Your task to perform on an android device: Search for bose soundsport free on ebay, select the first entry, and add it to the cart. Image 0: 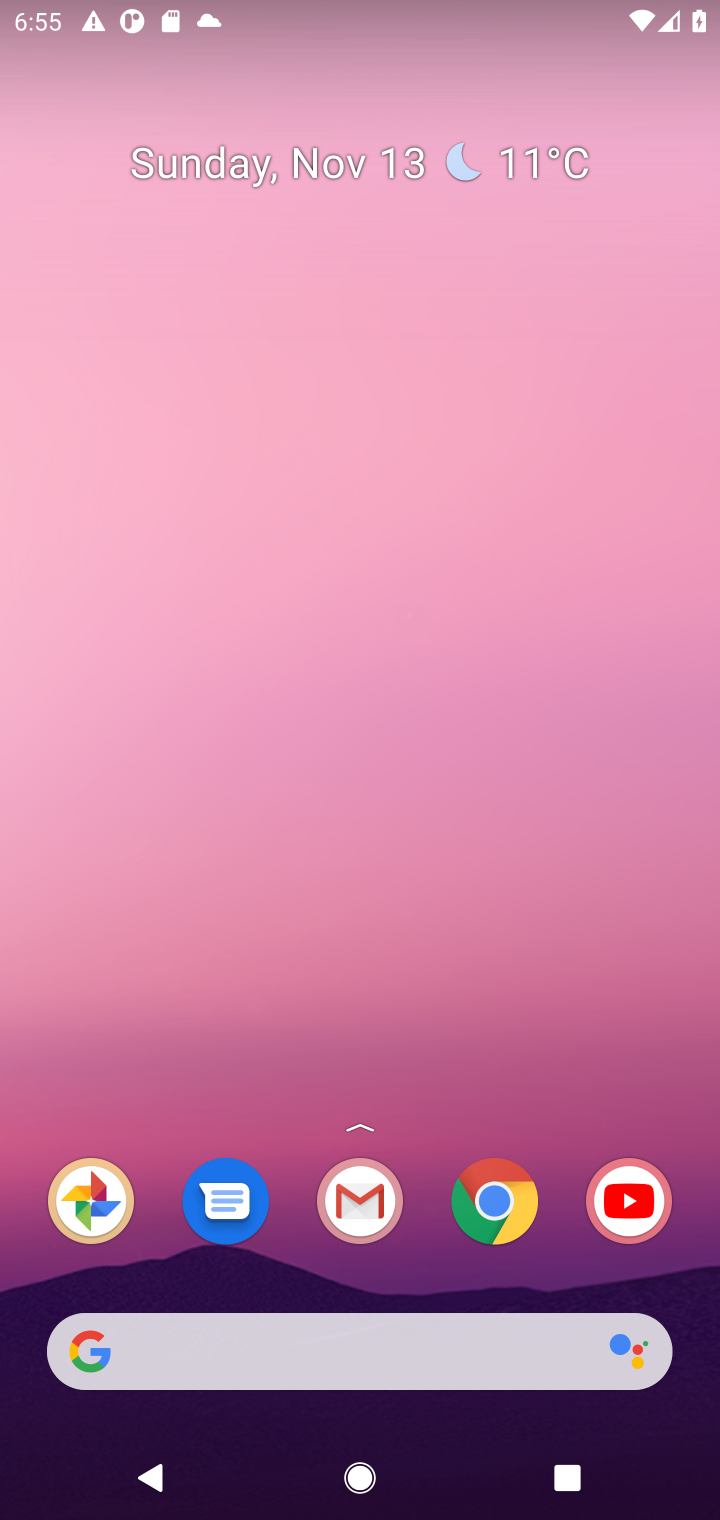
Step 0: drag from (451, 1174) to (550, 313)
Your task to perform on an android device: Search for bose soundsport free on ebay, select the first entry, and add it to the cart. Image 1: 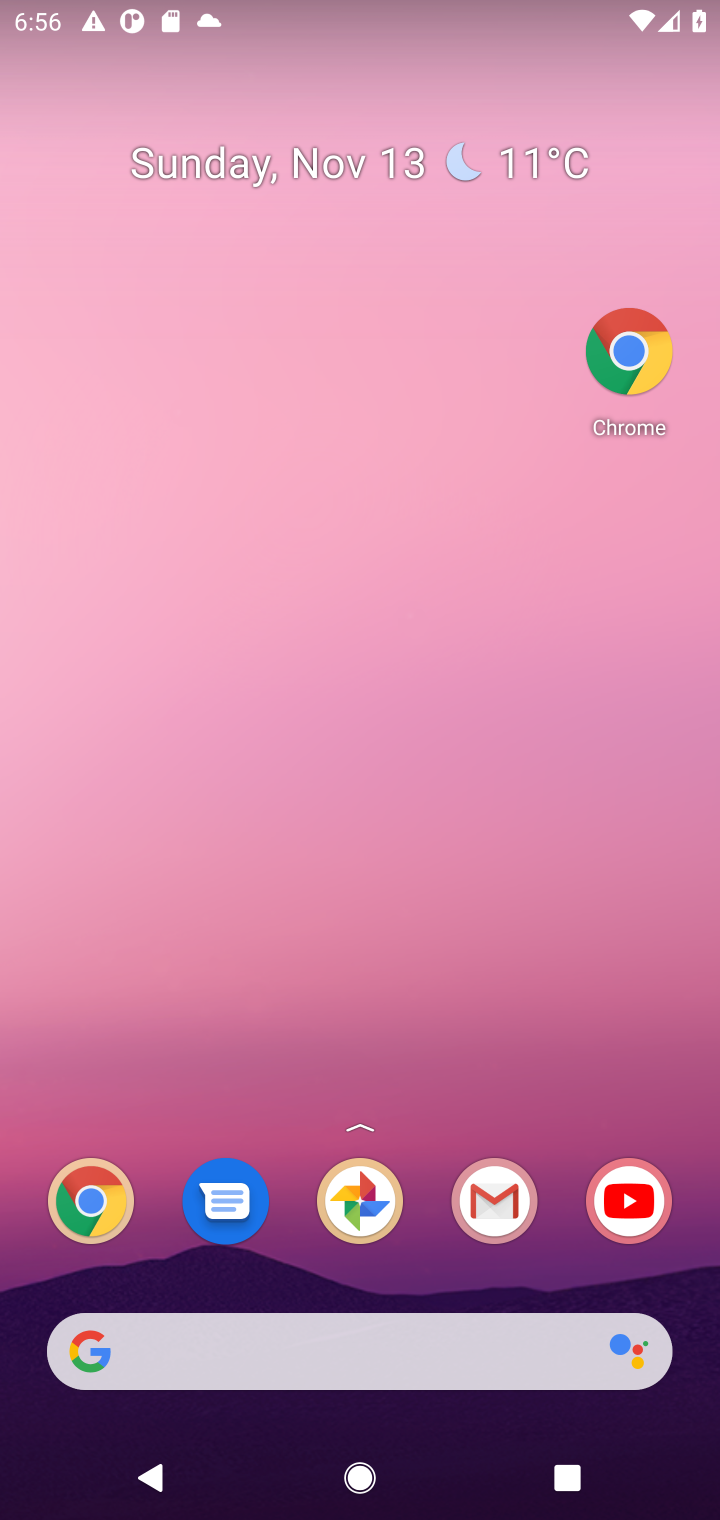
Step 1: drag from (432, 1307) to (314, 226)
Your task to perform on an android device: Search for bose soundsport free on ebay, select the first entry, and add it to the cart. Image 2: 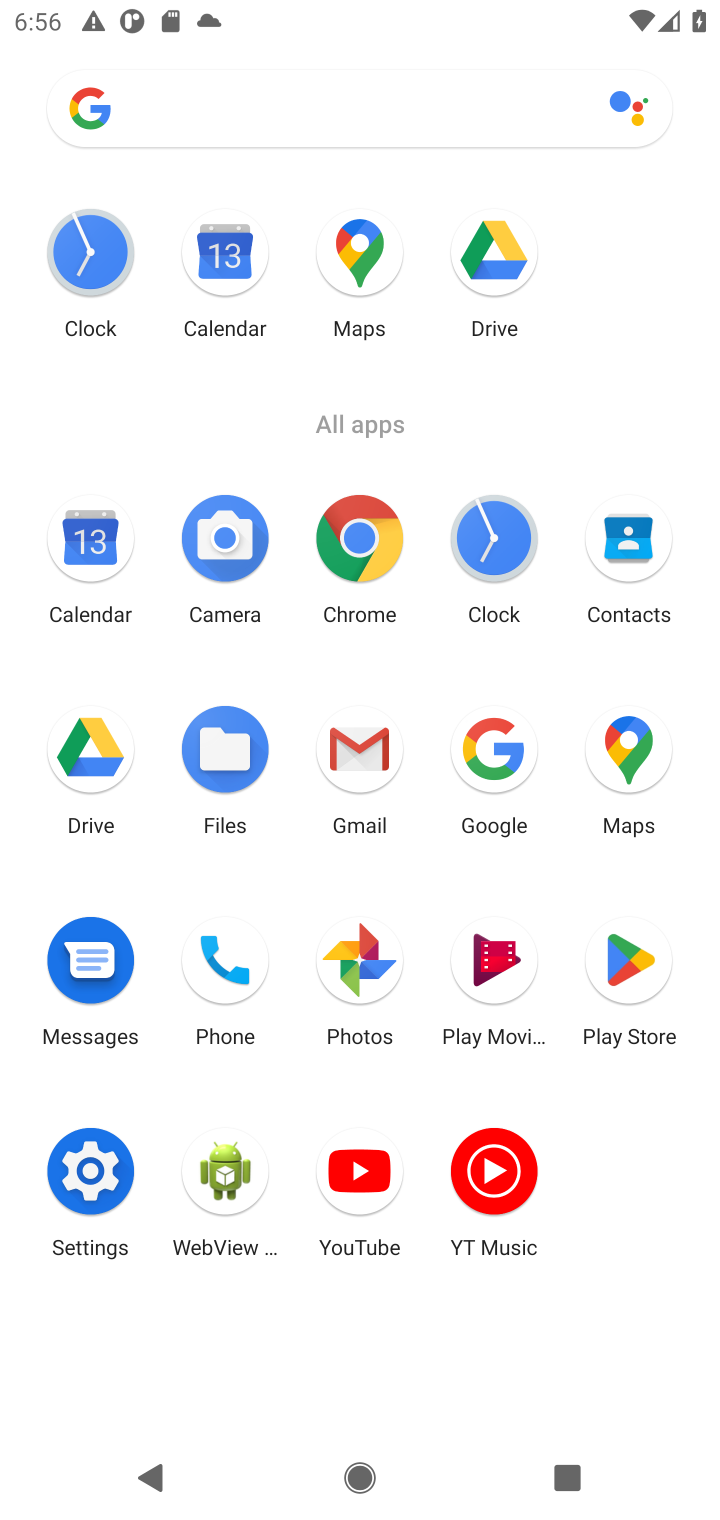
Step 2: click (361, 531)
Your task to perform on an android device: Search for bose soundsport free on ebay, select the first entry, and add it to the cart. Image 3: 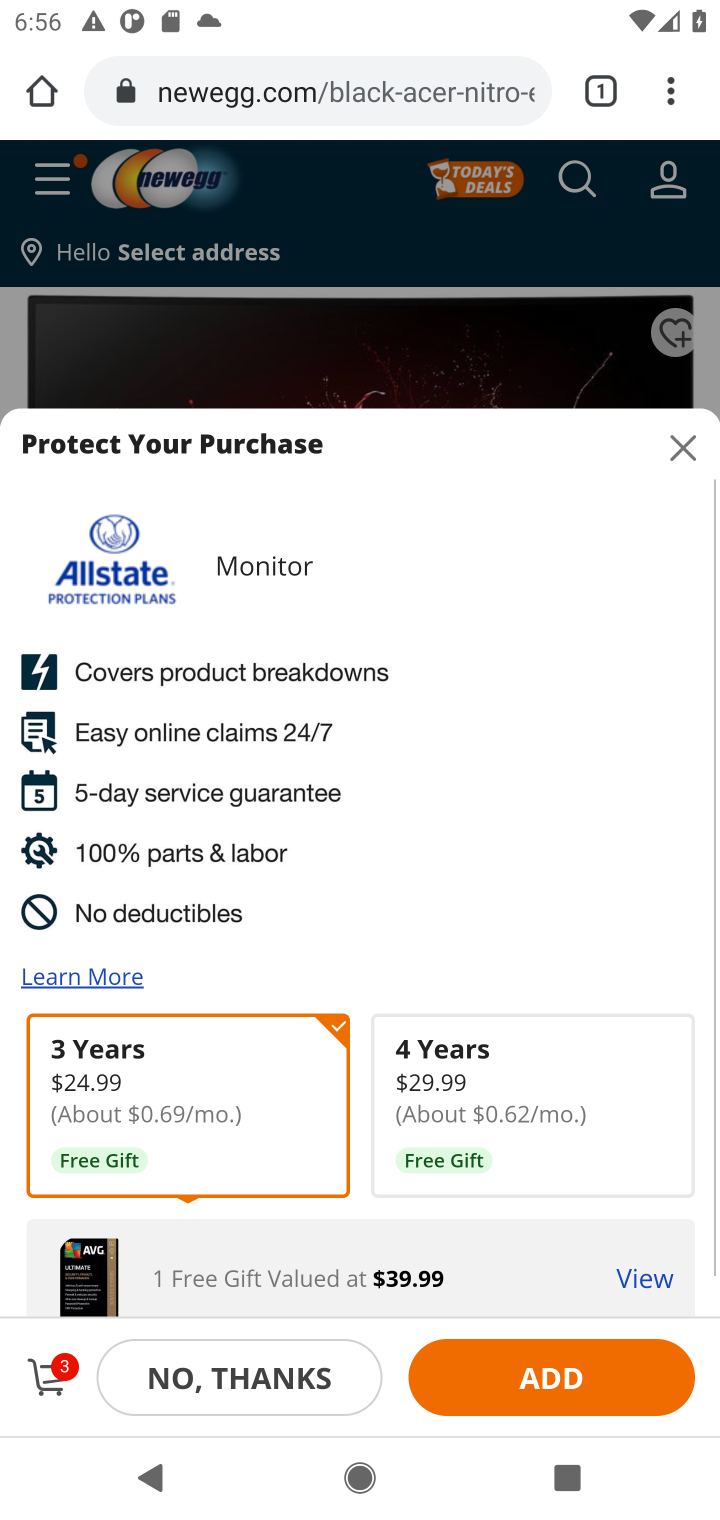
Step 3: click (413, 71)
Your task to perform on an android device: Search for bose soundsport free on ebay, select the first entry, and add it to the cart. Image 4: 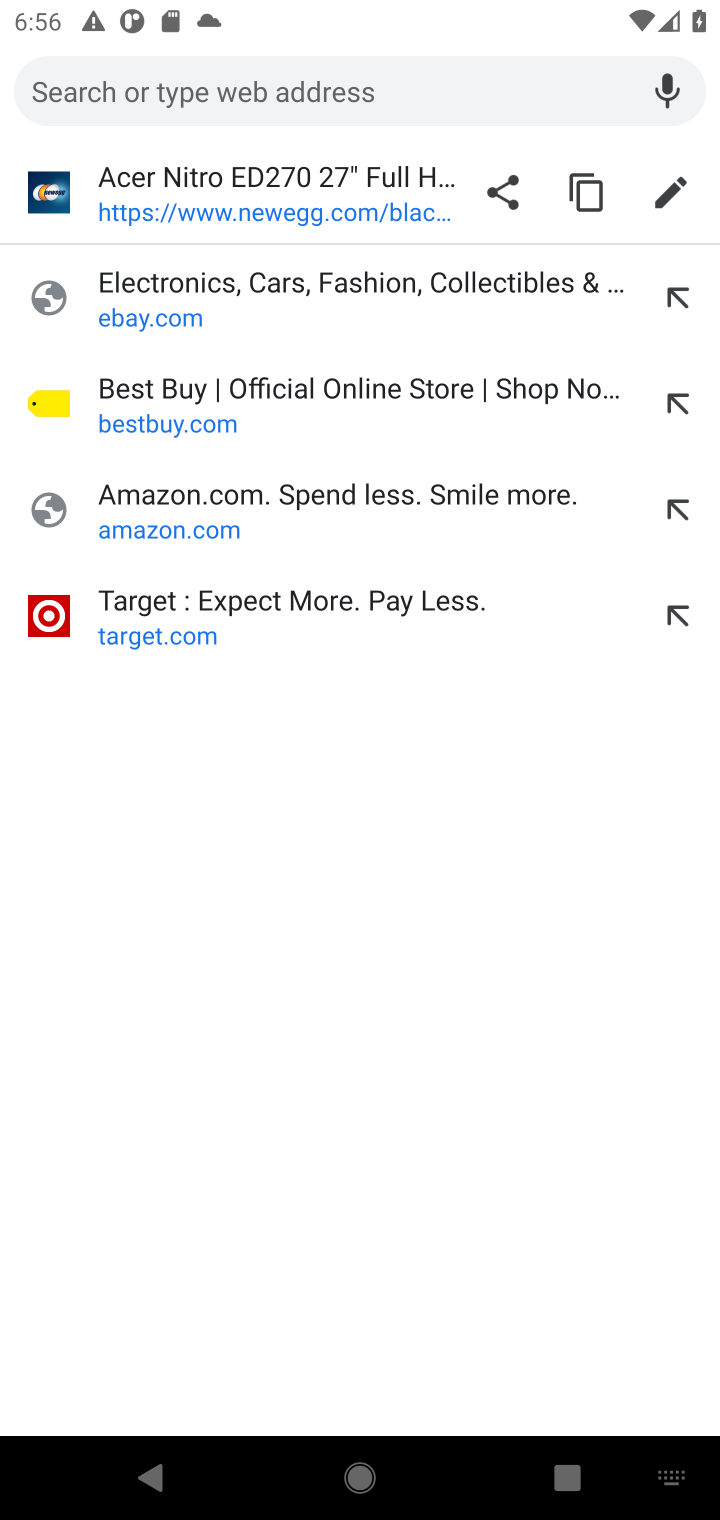
Step 4: type "ebay.com"
Your task to perform on an android device: Search for bose soundsport free on ebay, select the first entry, and add it to the cart. Image 5: 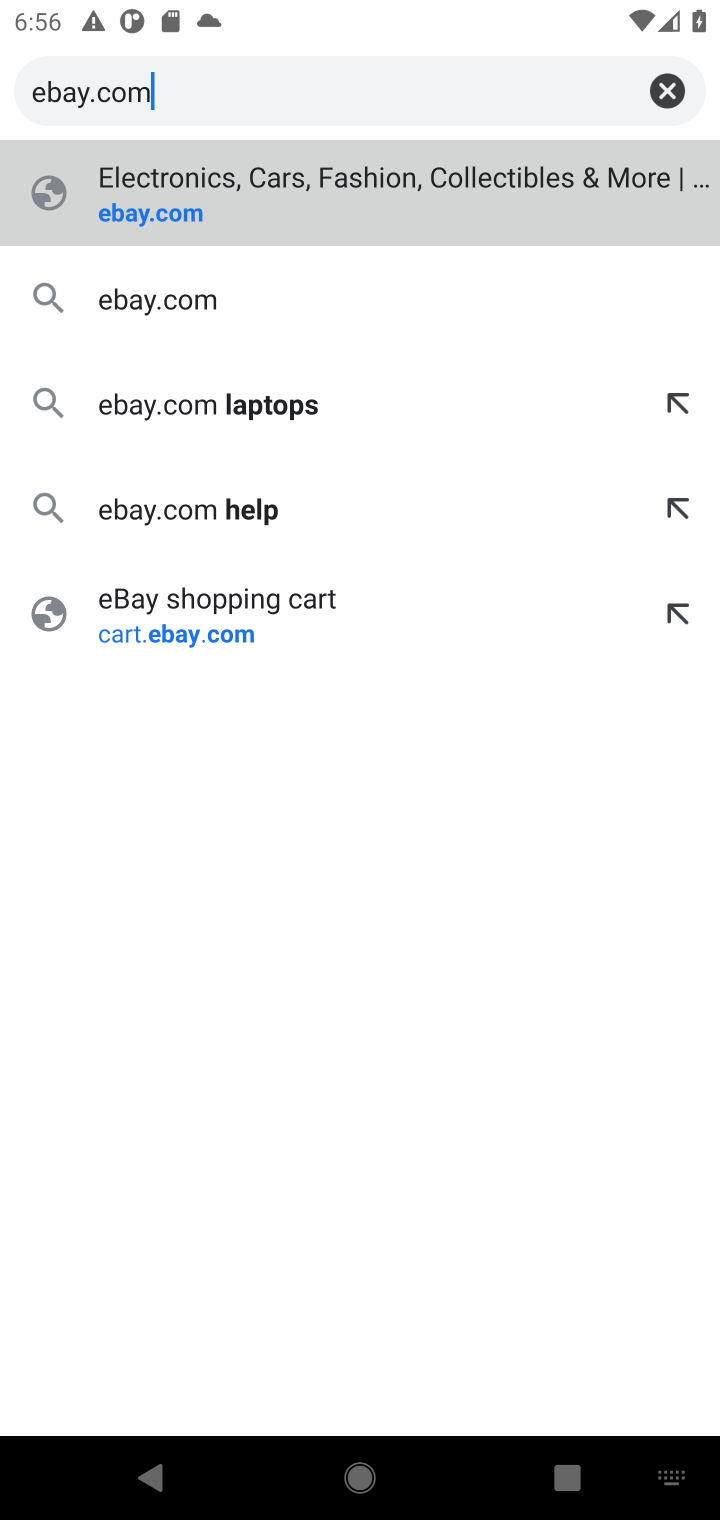
Step 5: press enter
Your task to perform on an android device: Search for bose soundsport free on ebay, select the first entry, and add it to the cart. Image 6: 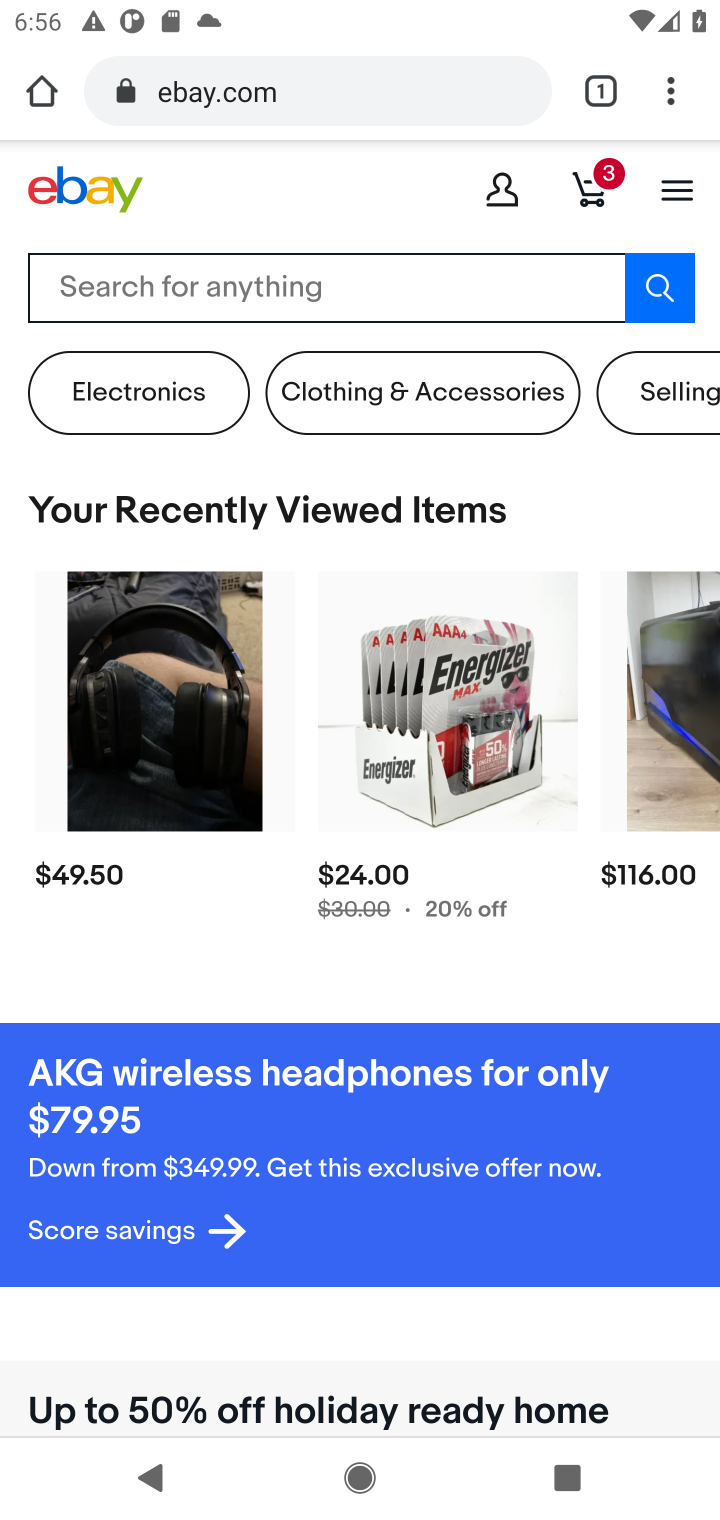
Step 6: click (411, 295)
Your task to perform on an android device: Search for bose soundsport free on ebay, select the first entry, and add it to the cart. Image 7: 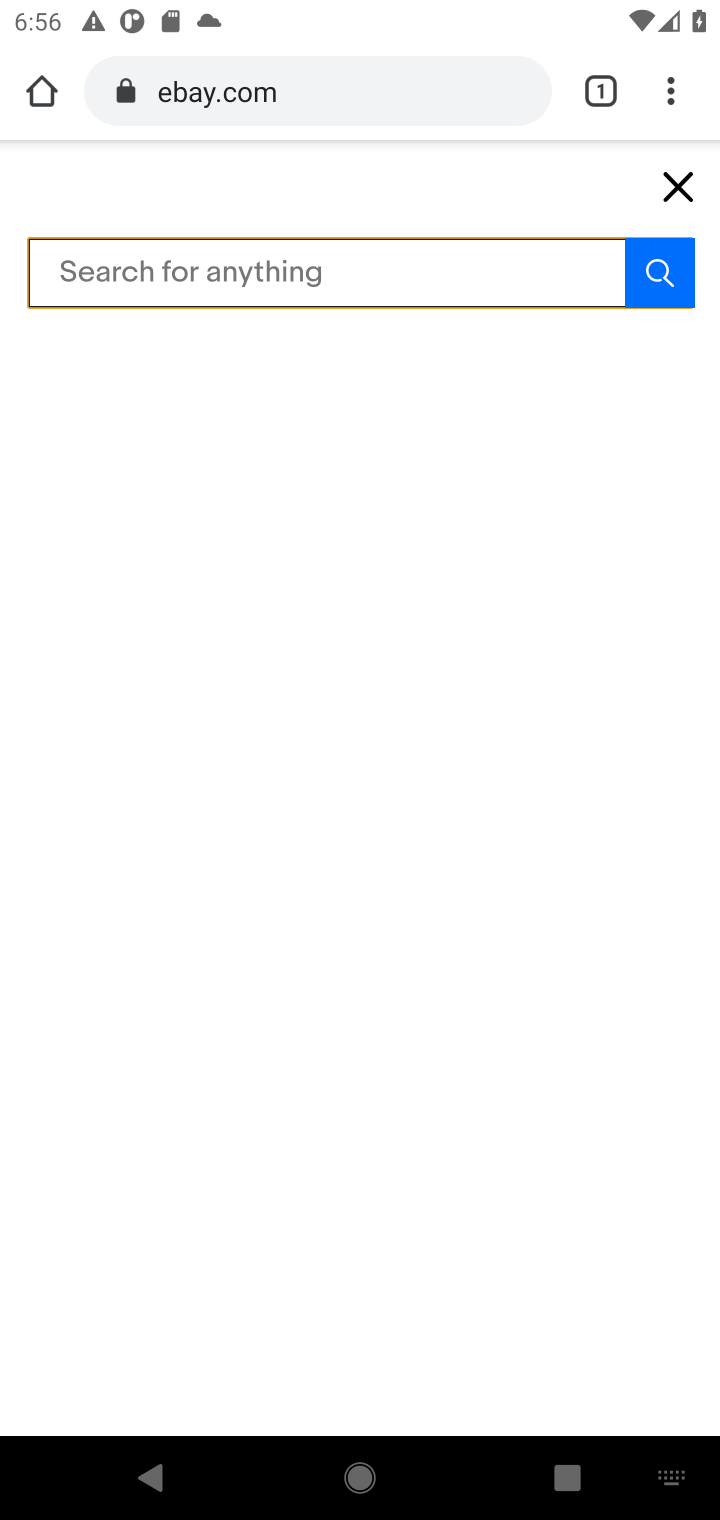
Step 7: type "bose soundsport free"
Your task to perform on an android device: Search for bose soundsport free on ebay, select the first entry, and add it to the cart. Image 8: 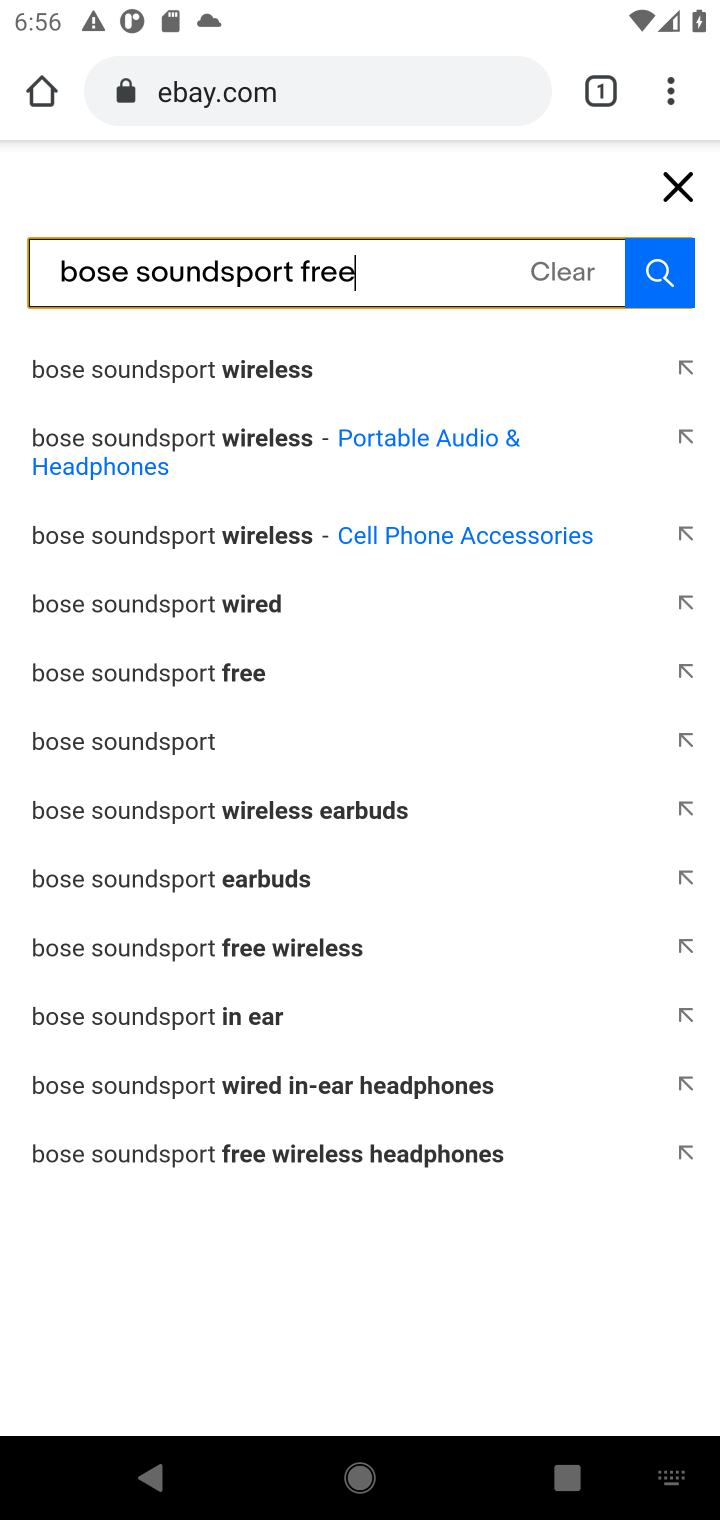
Step 8: press enter
Your task to perform on an android device: Search for bose soundsport free on ebay, select the first entry, and add it to the cart. Image 9: 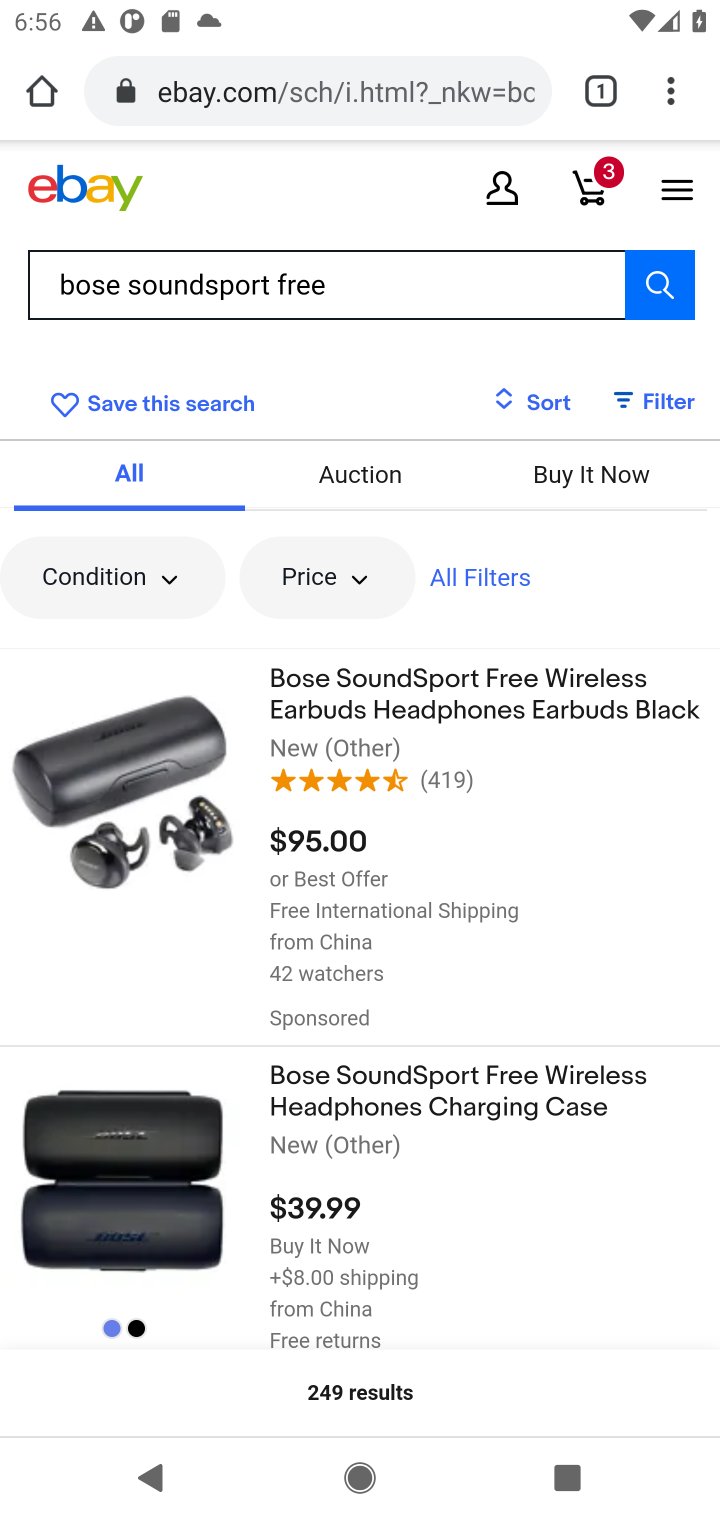
Step 9: click (480, 707)
Your task to perform on an android device: Search for bose soundsport free on ebay, select the first entry, and add it to the cart. Image 10: 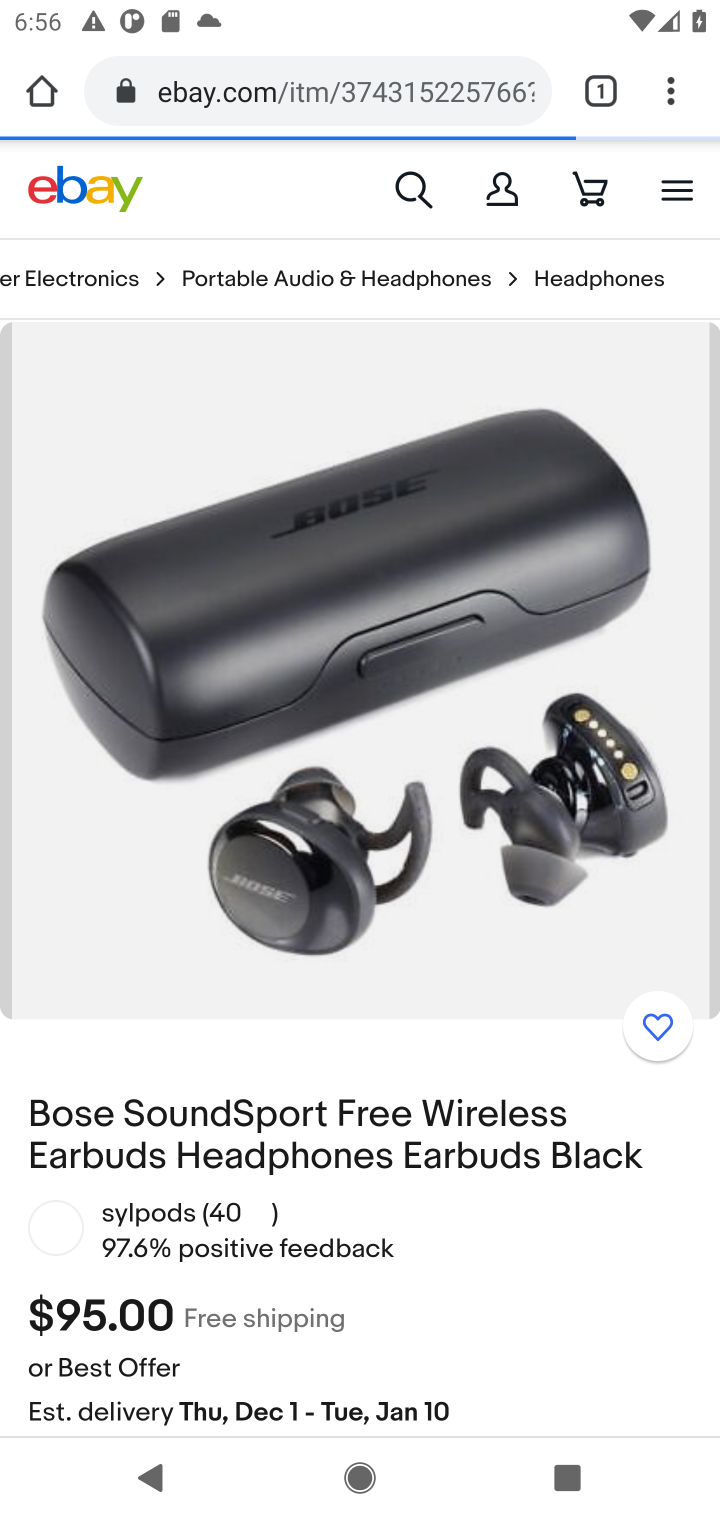
Step 10: press back button
Your task to perform on an android device: Search for bose soundsport free on ebay, select the first entry, and add it to the cart. Image 11: 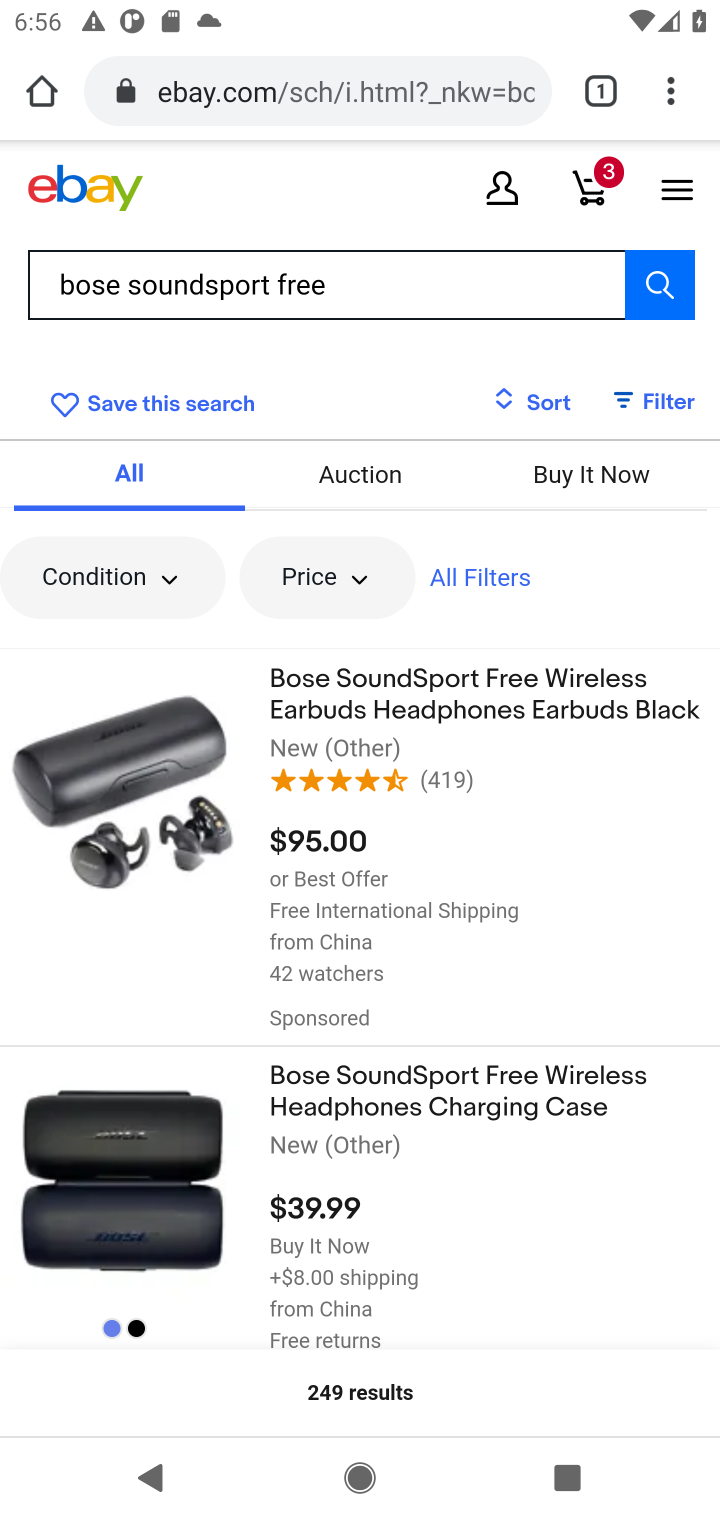
Step 11: drag from (421, 1293) to (420, 804)
Your task to perform on an android device: Search for bose soundsport free on ebay, select the first entry, and add it to the cart. Image 12: 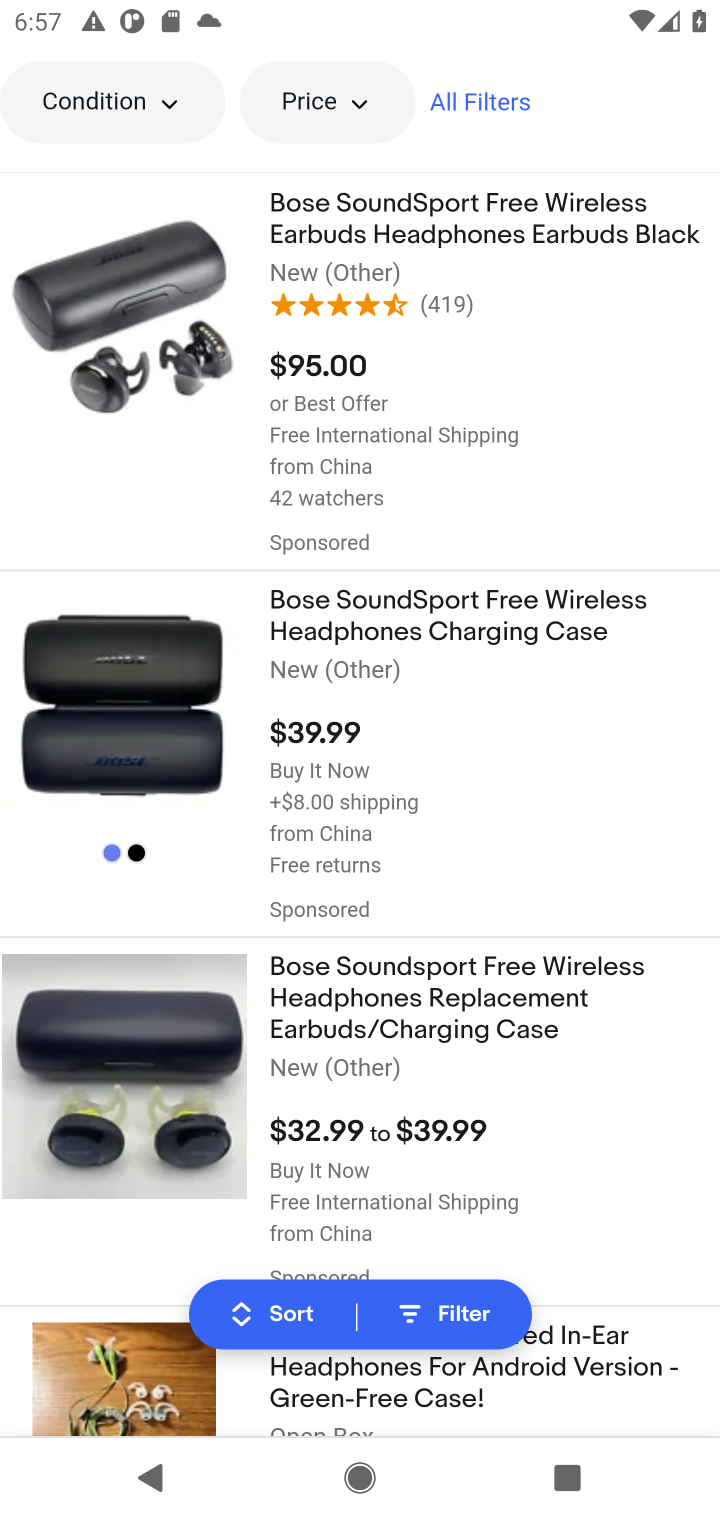
Step 12: drag from (554, 1169) to (580, 553)
Your task to perform on an android device: Search for bose soundsport free on ebay, select the first entry, and add it to the cart. Image 13: 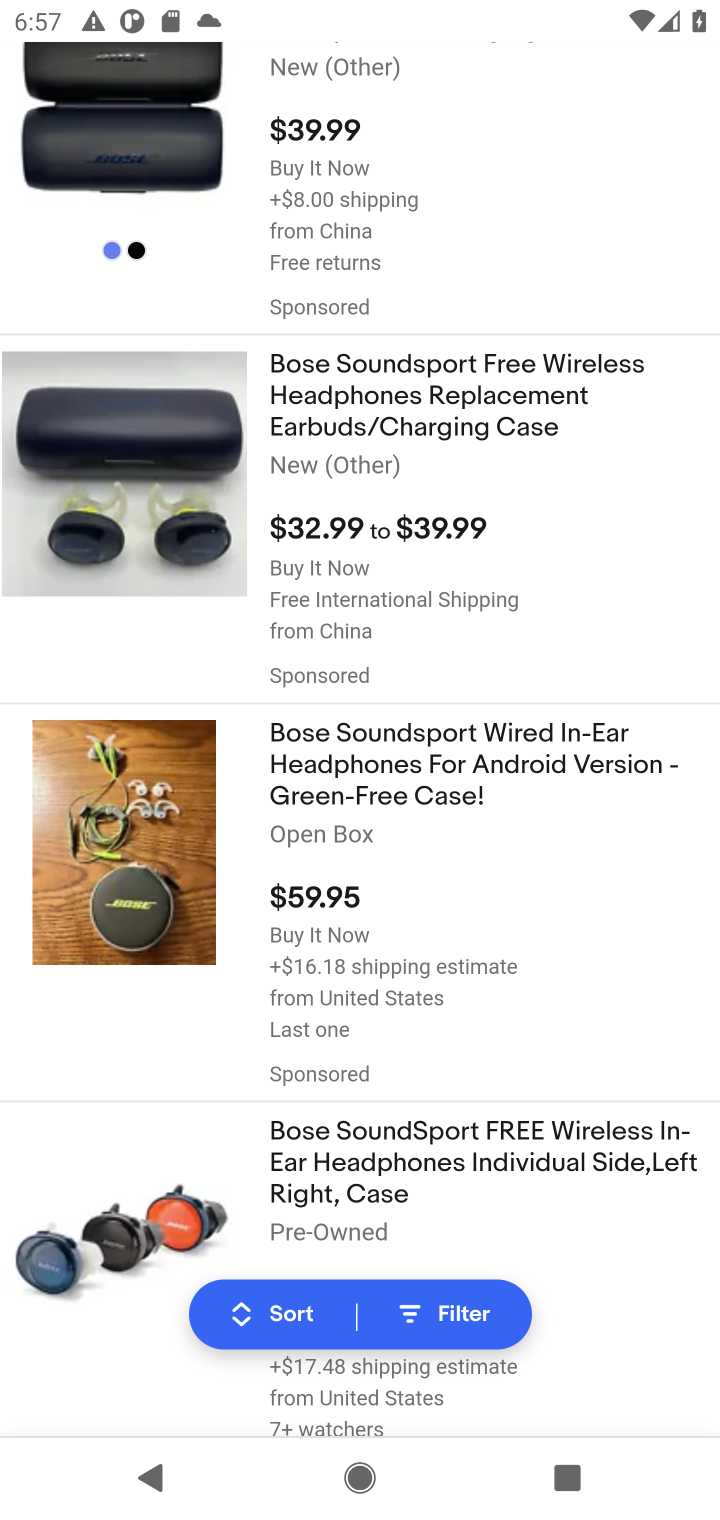
Step 13: drag from (554, 1185) to (489, 776)
Your task to perform on an android device: Search for bose soundsport free on ebay, select the first entry, and add it to the cart. Image 14: 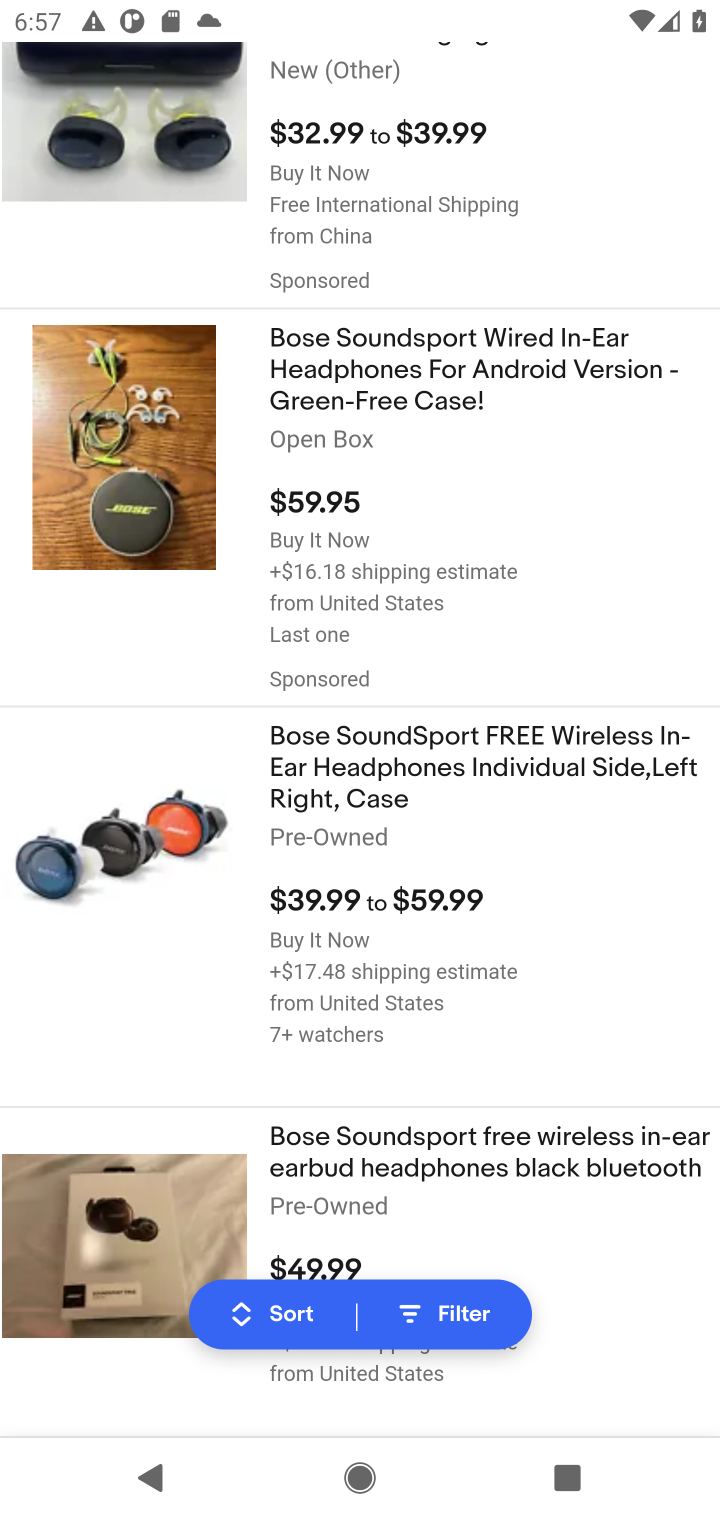
Step 14: drag from (441, 1045) to (542, 457)
Your task to perform on an android device: Search for bose soundsport free on ebay, select the first entry, and add it to the cart. Image 15: 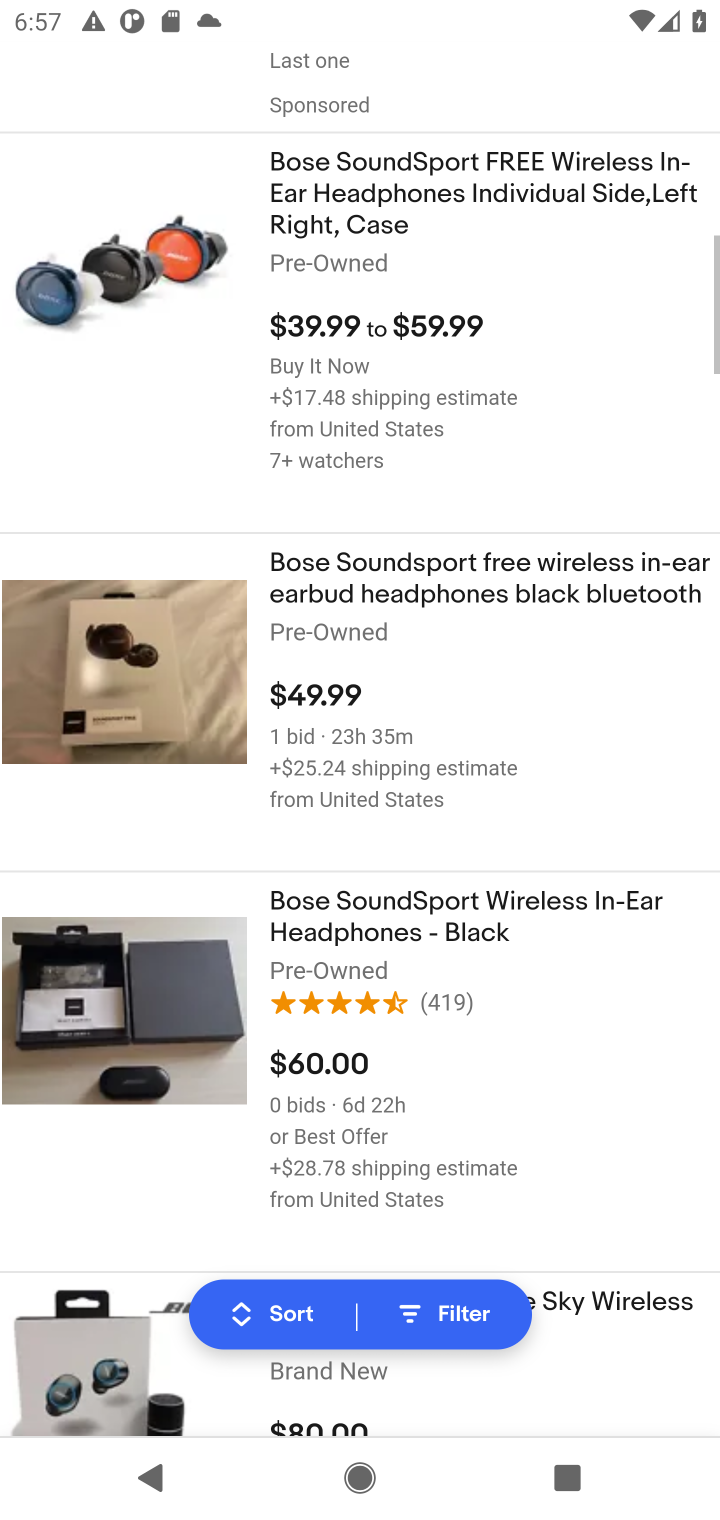
Step 15: drag from (595, 981) to (560, 322)
Your task to perform on an android device: Search for bose soundsport free on ebay, select the first entry, and add it to the cart. Image 16: 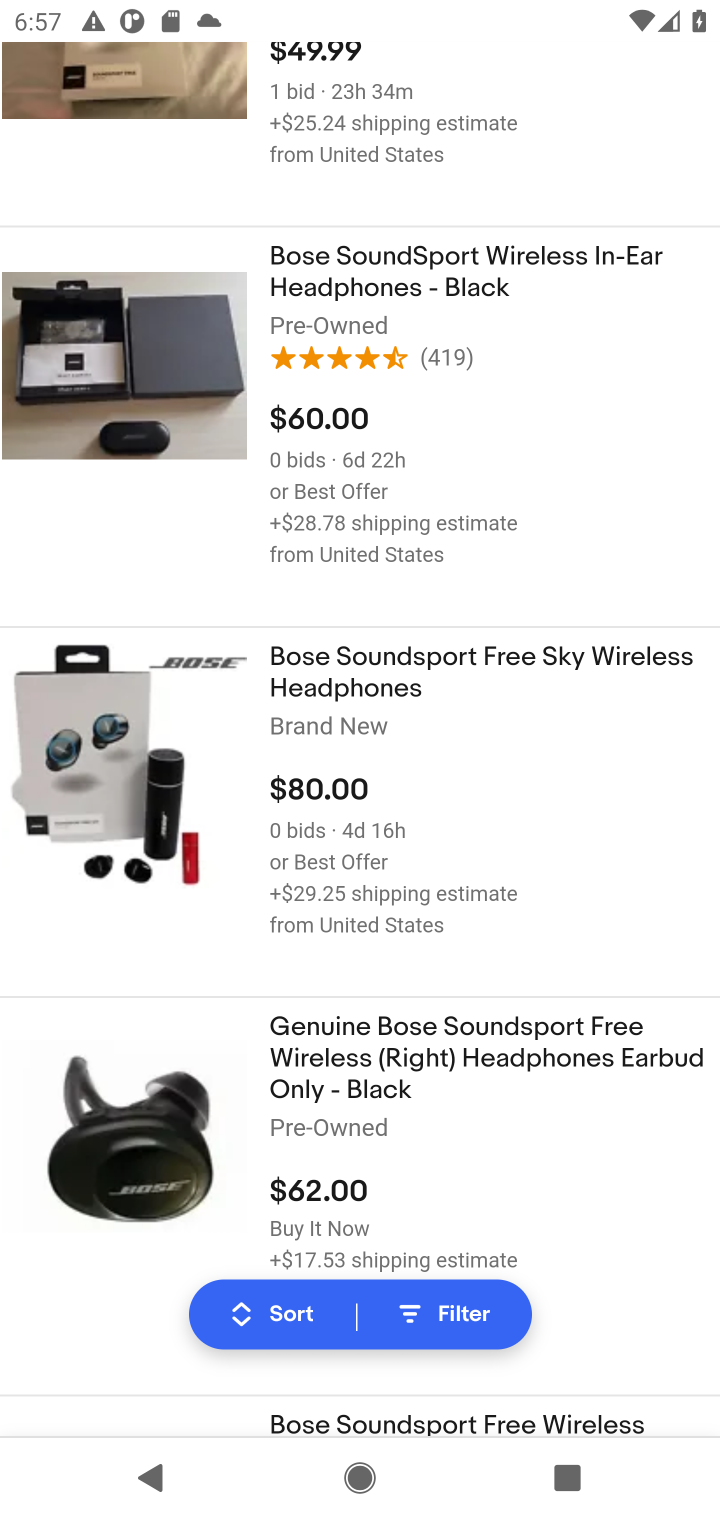
Step 16: drag from (432, 398) to (501, 1326)
Your task to perform on an android device: Search for bose soundsport free on ebay, select the first entry, and add it to the cart. Image 17: 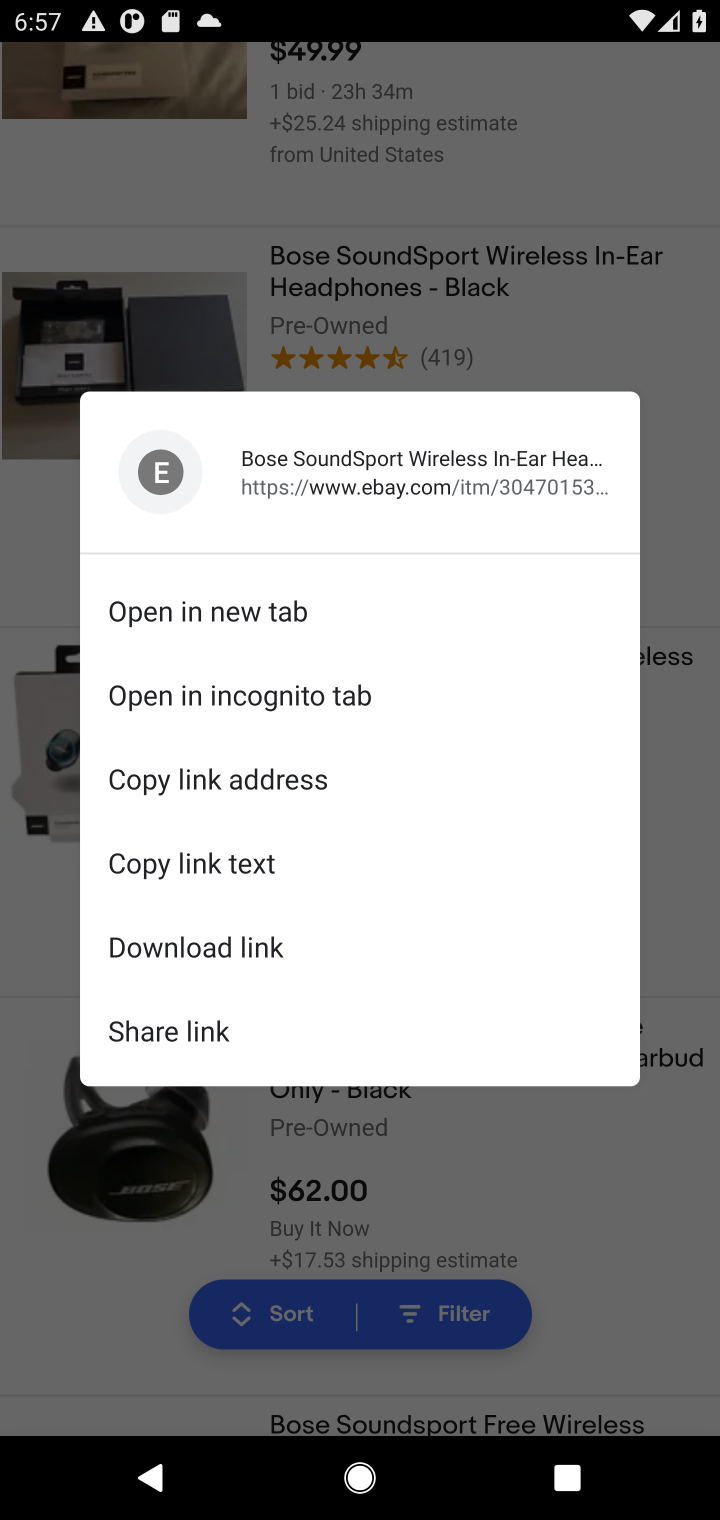
Step 17: click (454, 229)
Your task to perform on an android device: Search for bose soundsport free on ebay, select the first entry, and add it to the cart. Image 18: 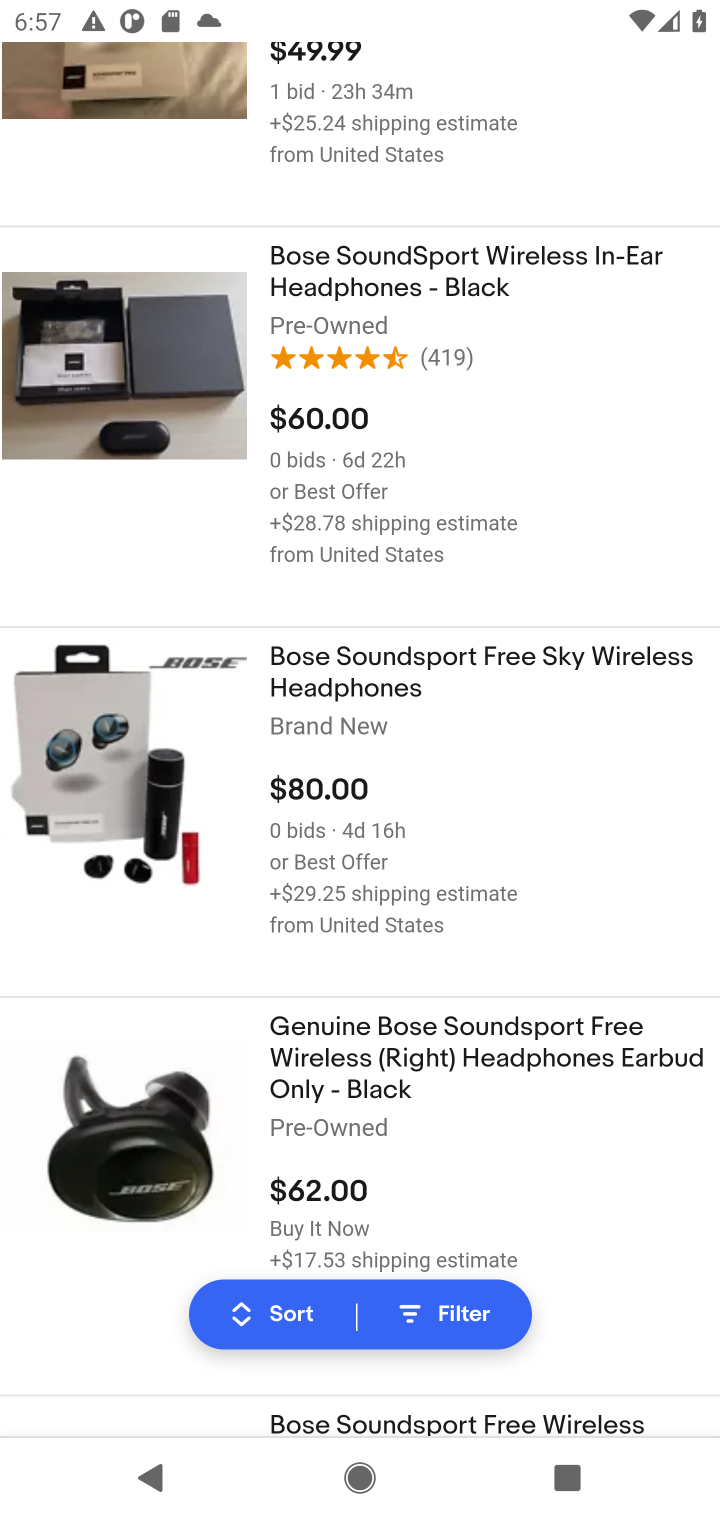
Step 18: drag from (436, 210) to (477, 1038)
Your task to perform on an android device: Search for bose soundsport free on ebay, select the first entry, and add it to the cart. Image 19: 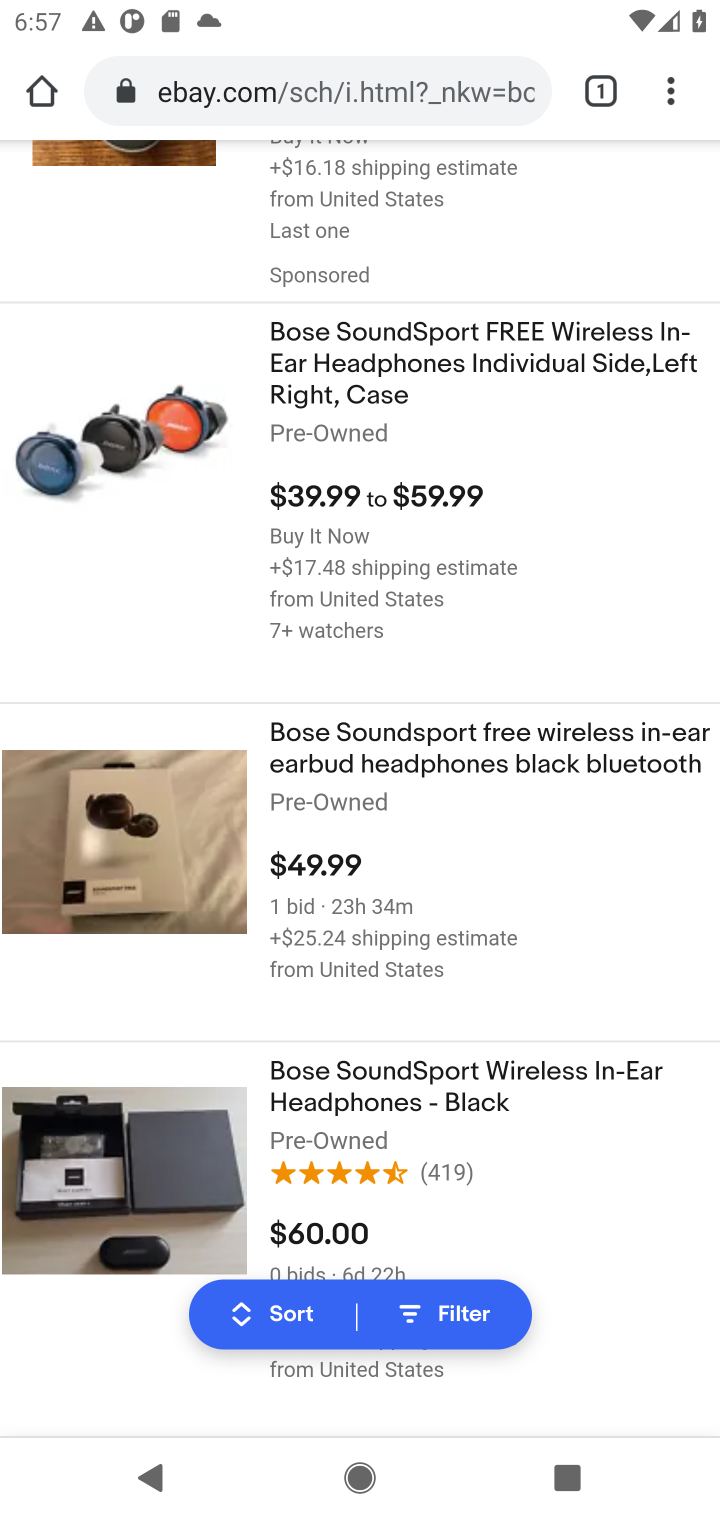
Step 19: drag from (452, 290) to (409, 767)
Your task to perform on an android device: Search for bose soundsport free on ebay, select the first entry, and add it to the cart. Image 20: 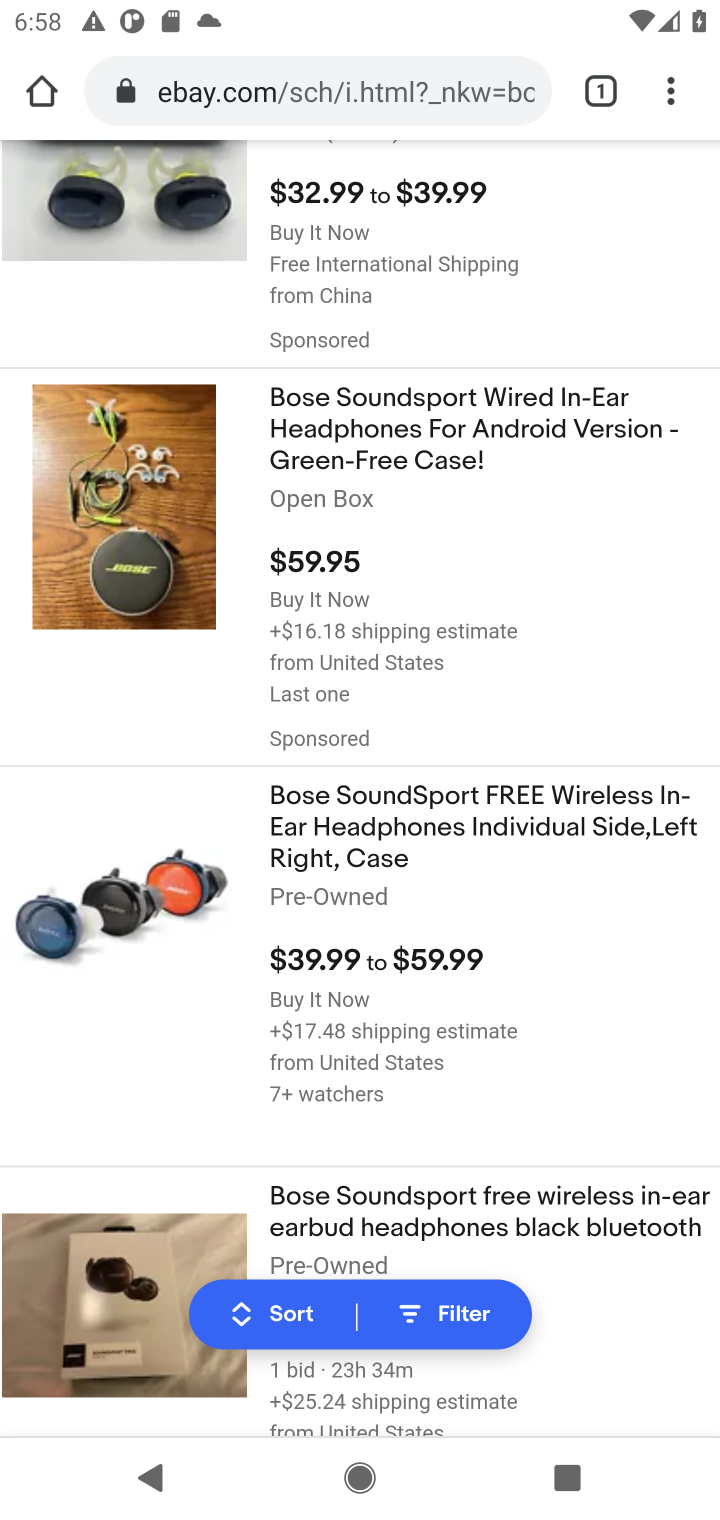
Step 20: drag from (473, 256) to (409, 842)
Your task to perform on an android device: Search for bose soundsport free on ebay, select the first entry, and add it to the cart. Image 21: 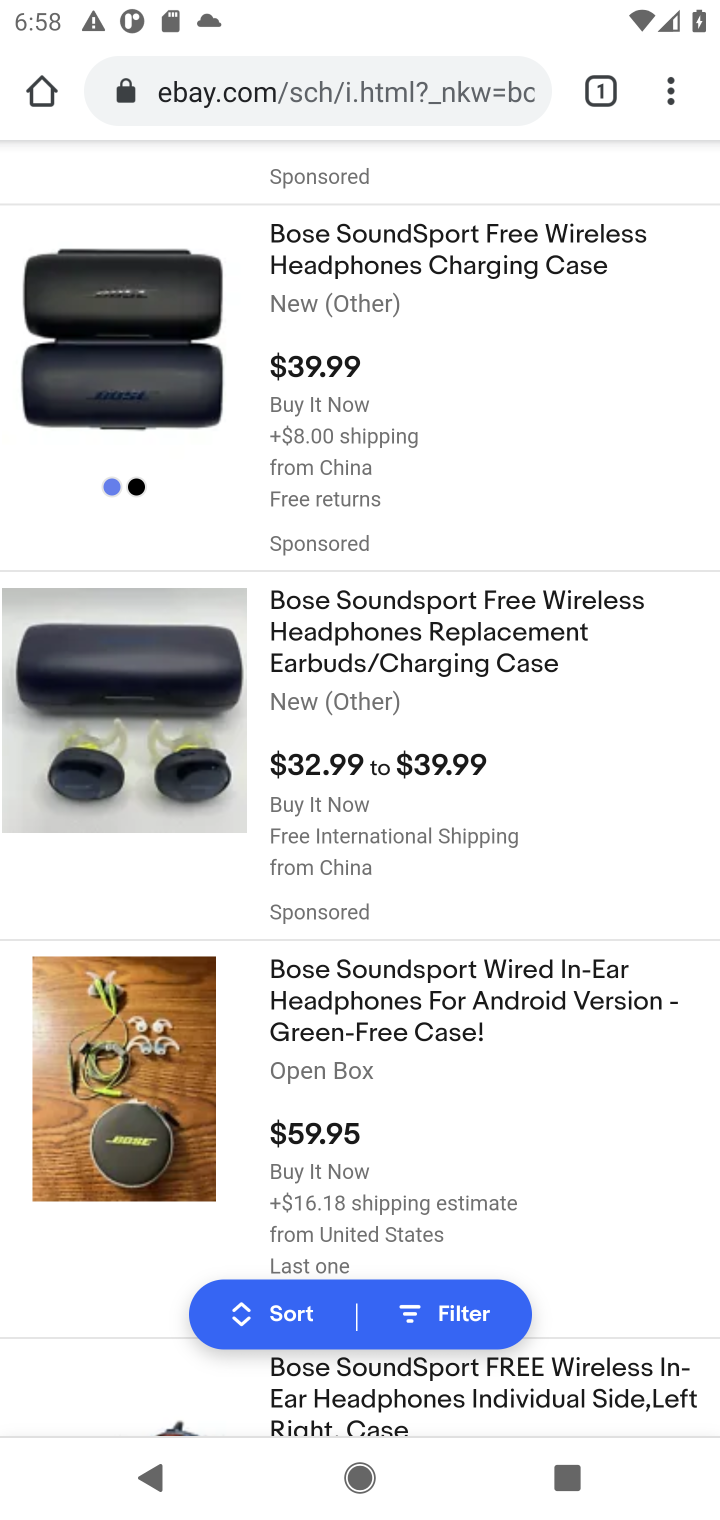
Step 21: drag from (424, 321) to (440, 1003)
Your task to perform on an android device: Search for bose soundsport free on ebay, select the first entry, and add it to the cart. Image 22: 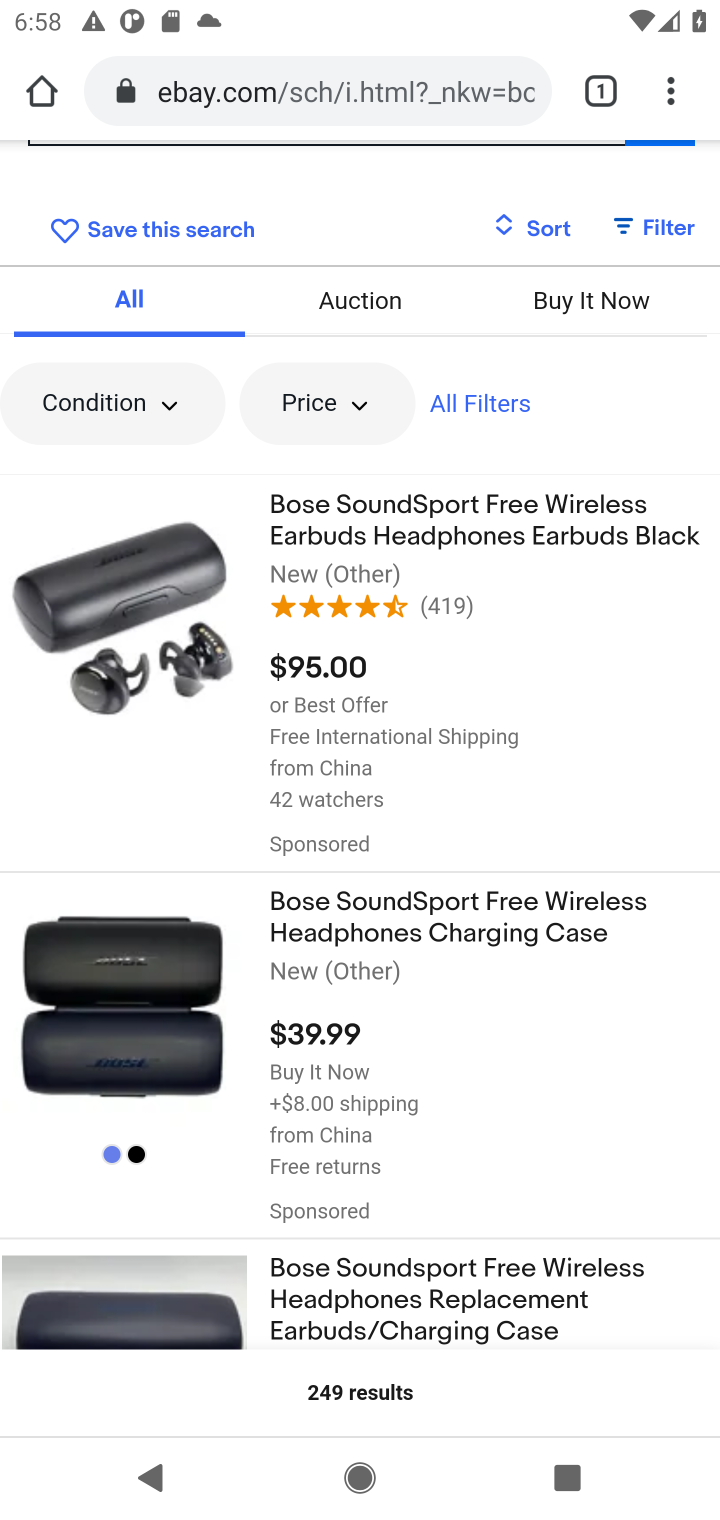
Step 22: drag from (528, 1084) to (540, 258)
Your task to perform on an android device: Search for bose soundsport free on ebay, select the first entry, and add it to the cart. Image 23: 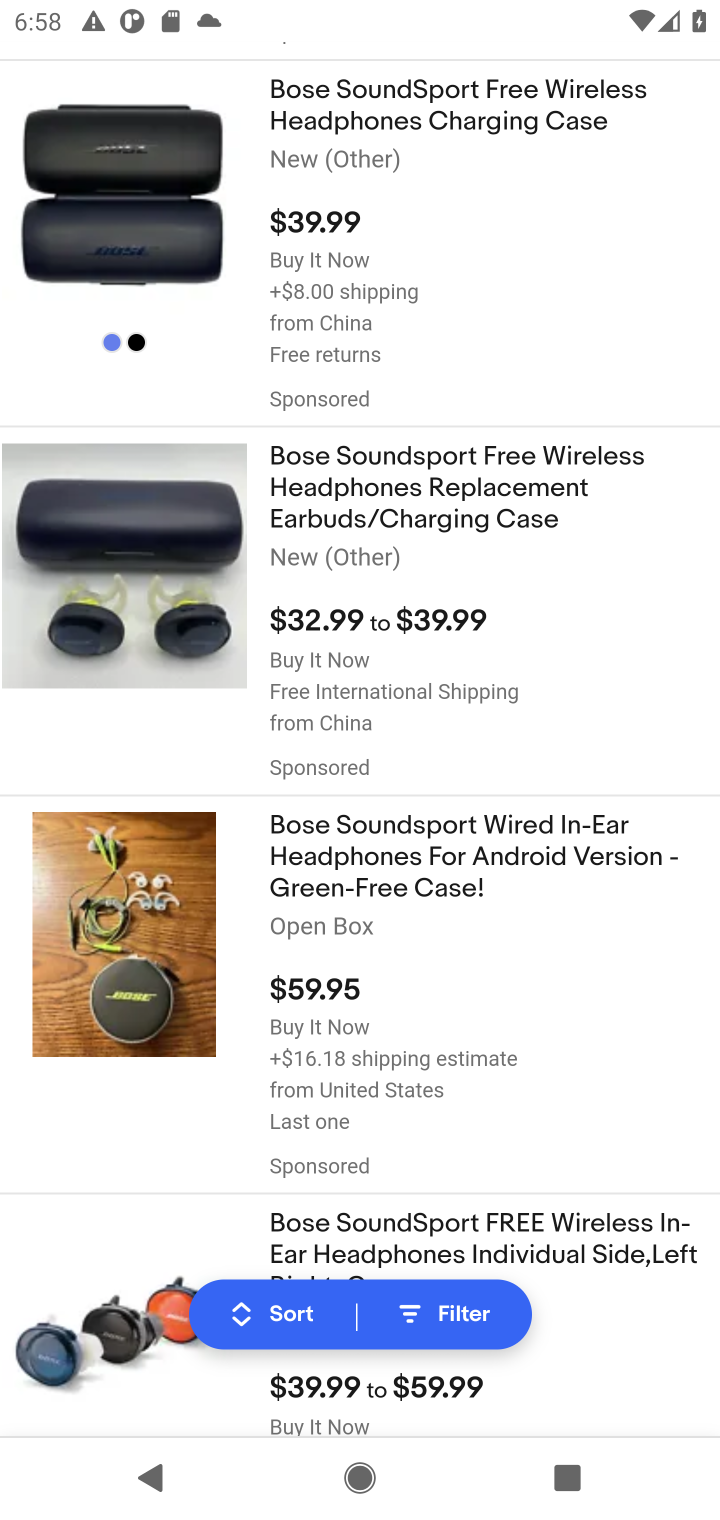
Step 23: click (446, 838)
Your task to perform on an android device: Search for bose soundsport free on ebay, select the first entry, and add it to the cart. Image 24: 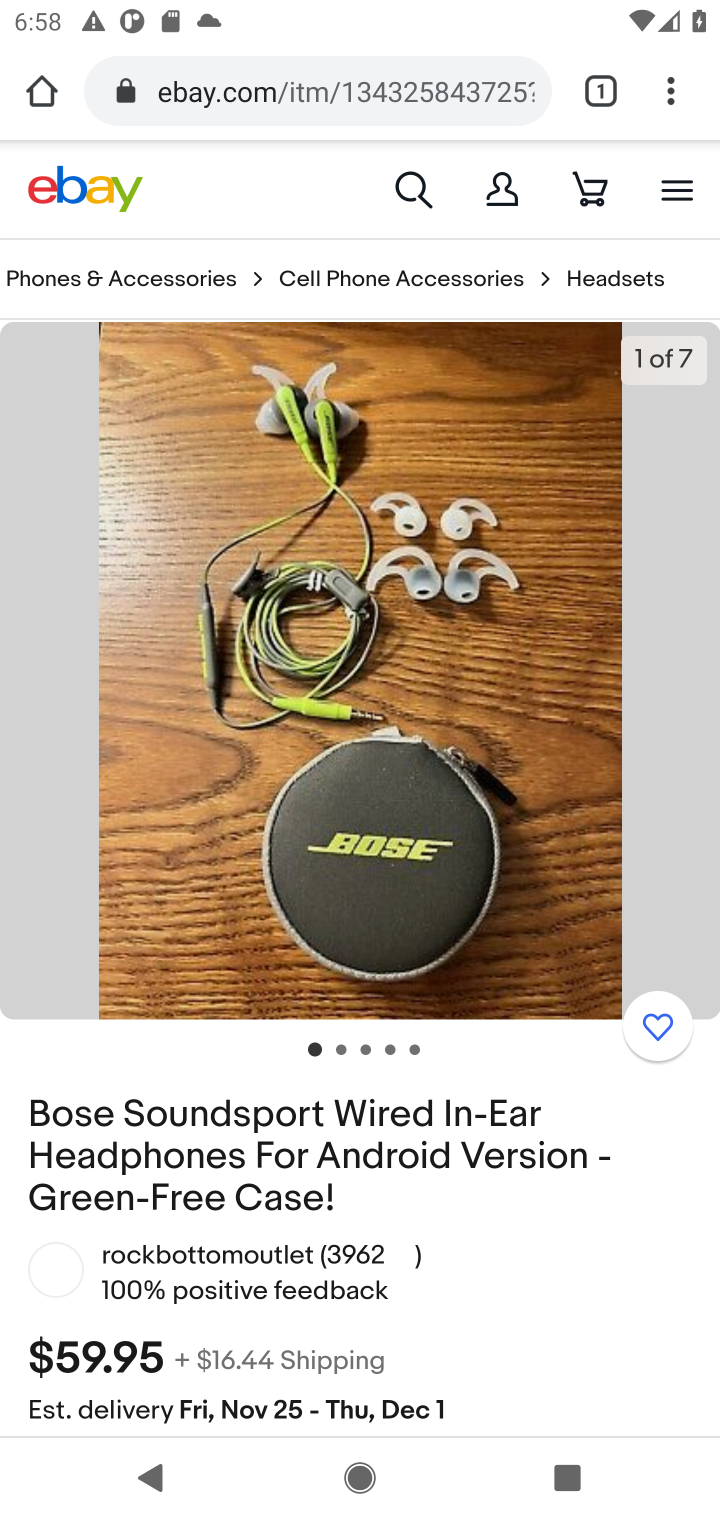
Step 24: drag from (443, 1189) to (447, 550)
Your task to perform on an android device: Search for bose soundsport free on ebay, select the first entry, and add it to the cart. Image 25: 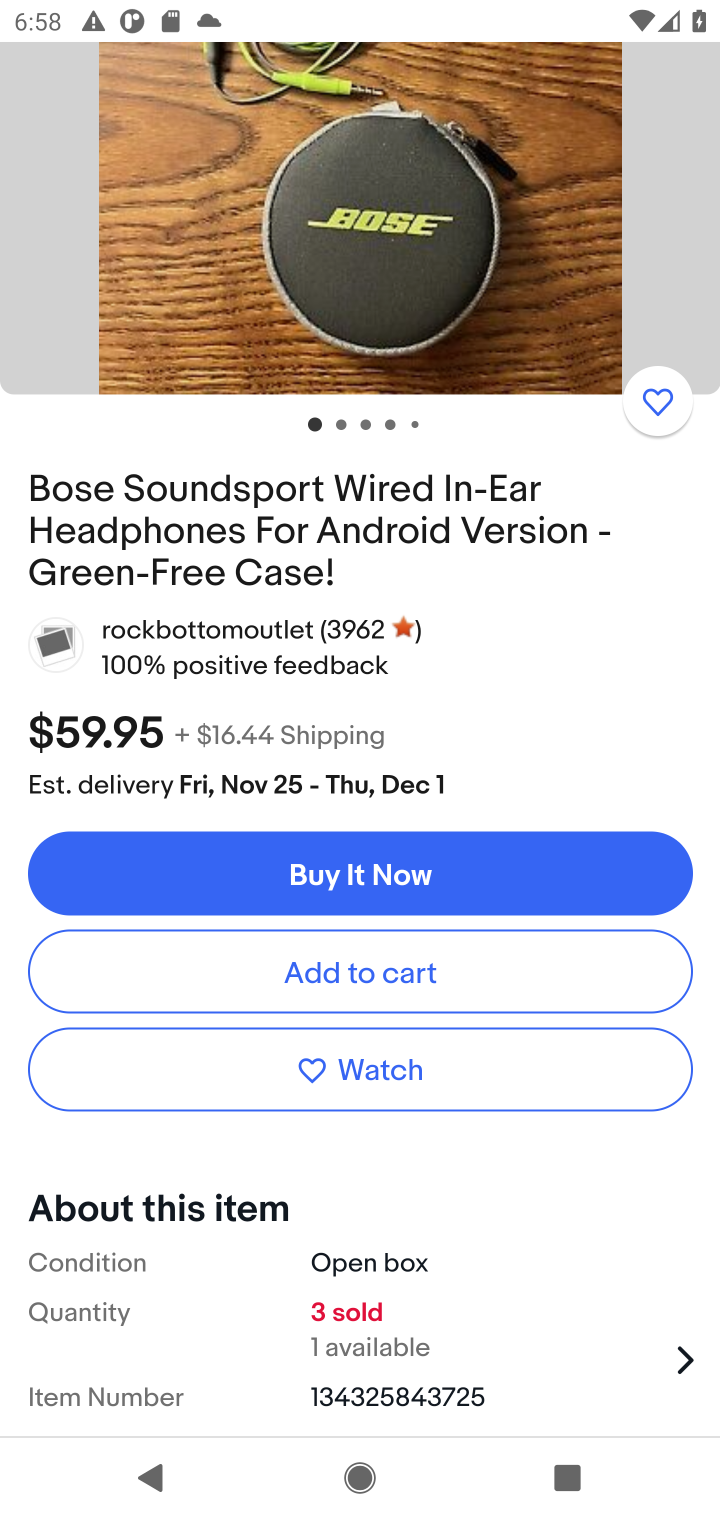
Step 25: click (387, 969)
Your task to perform on an android device: Search for bose soundsport free on ebay, select the first entry, and add it to the cart. Image 26: 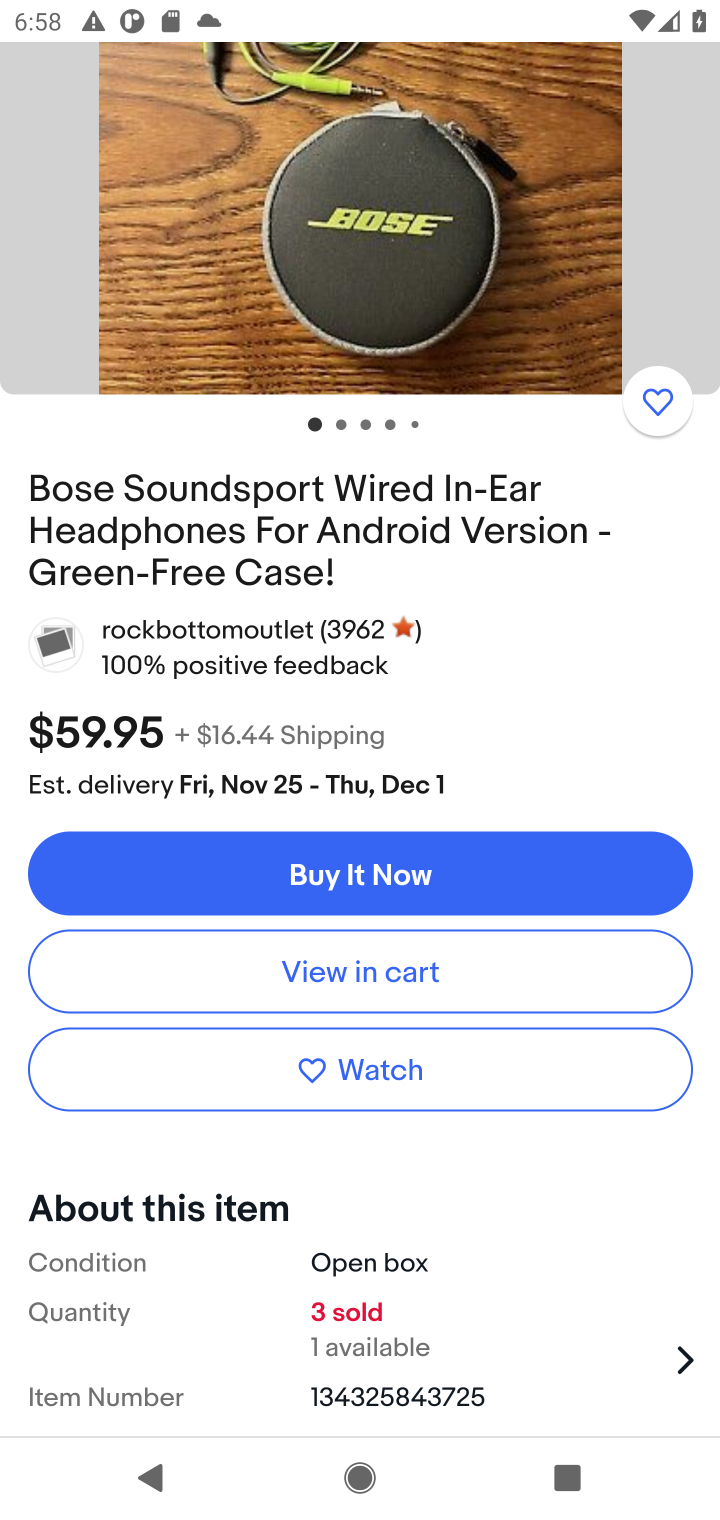
Step 26: task complete